Your task to perform on an android device: toggle notifications settings in the gmail app Image 0: 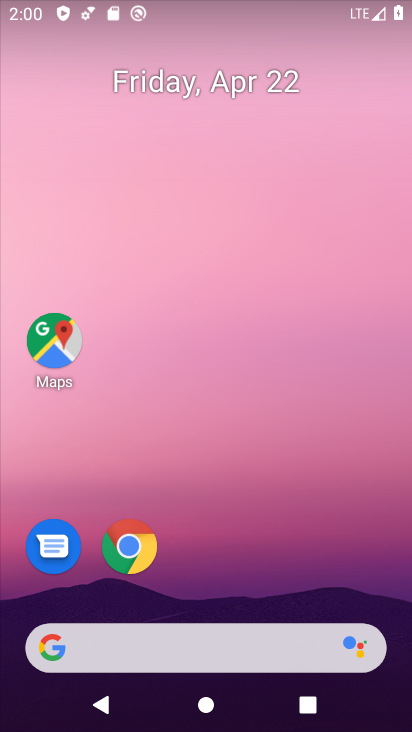
Step 0: drag from (238, 538) to (309, 205)
Your task to perform on an android device: toggle notifications settings in the gmail app Image 1: 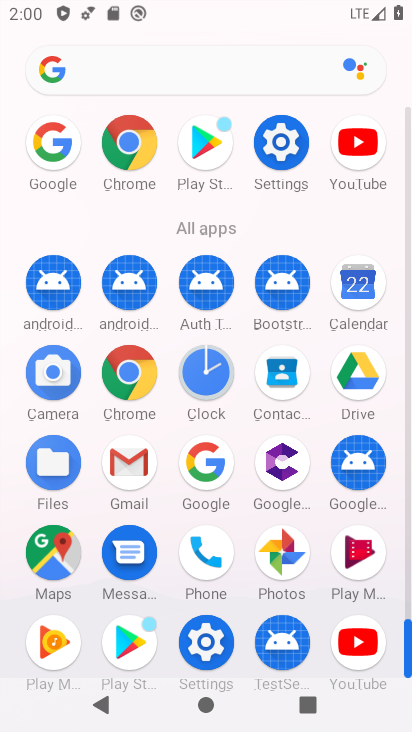
Step 1: click (136, 477)
Your task to perform on an android device: toggle notifications settings in the gmail app Image 2: 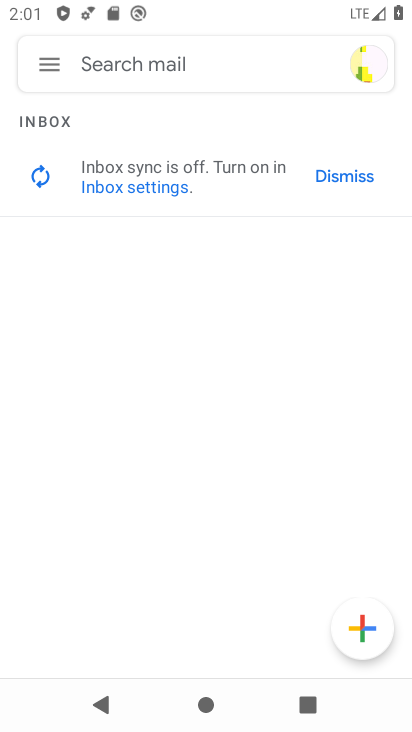
Step 2: click (55, 73)
Your task to perform on an android device: toggle notifications settings in the gmail app Image 3: 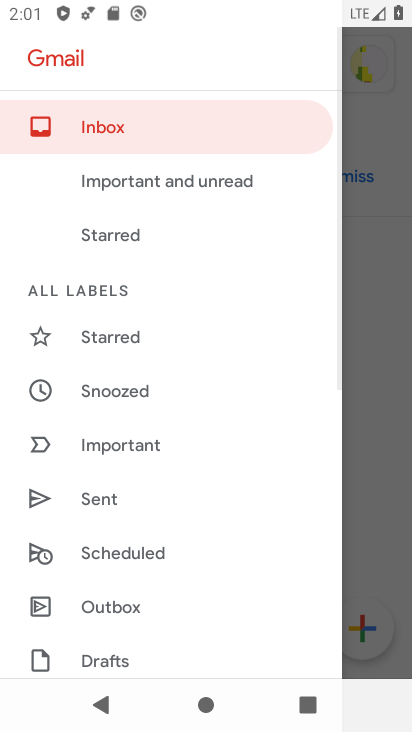
Step 3: drag from (119, 506) to (183, 163)
Your task to perform on an android device: toggle notifications settings in the gmail app Image 4: 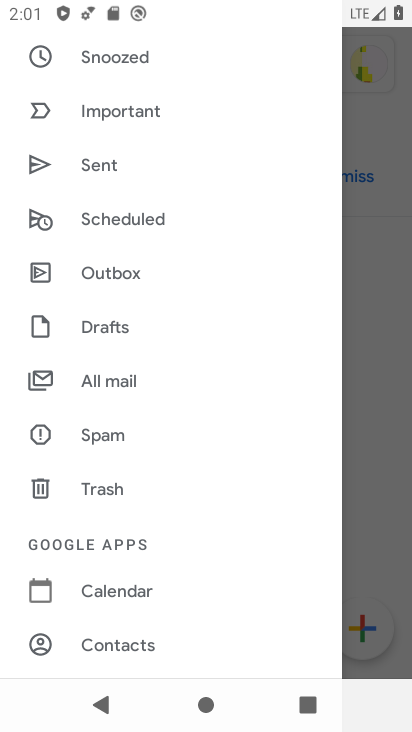
Step 4: drag from (149, 500) to (204, 197)
Your task to perform on an android device: toggle notifications settings in the gmail app Image 5: 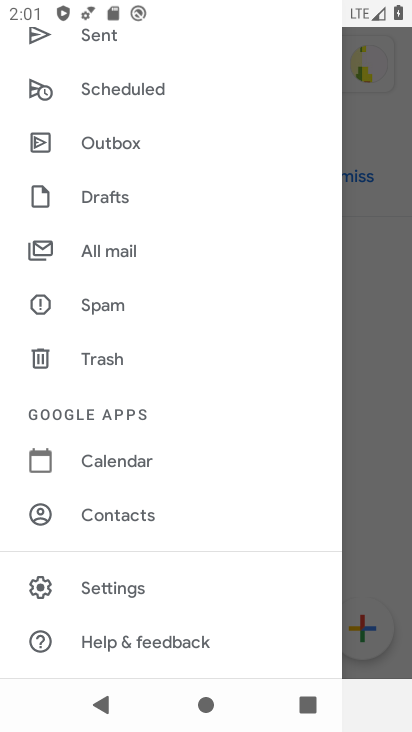
Step 5: click (127, 585)
Your task to perform on an android device: toggle notifications settings in the gmail app Image 6: 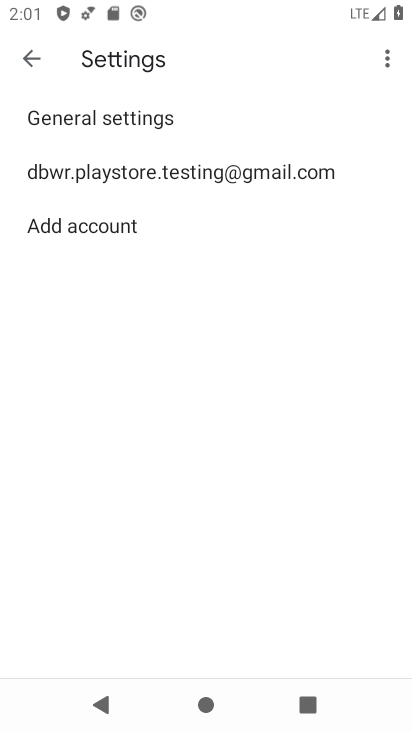
Step 6: click (186, 182)
Your task to perform on an android device: toggle notifications settings in the gmail app Image 7: 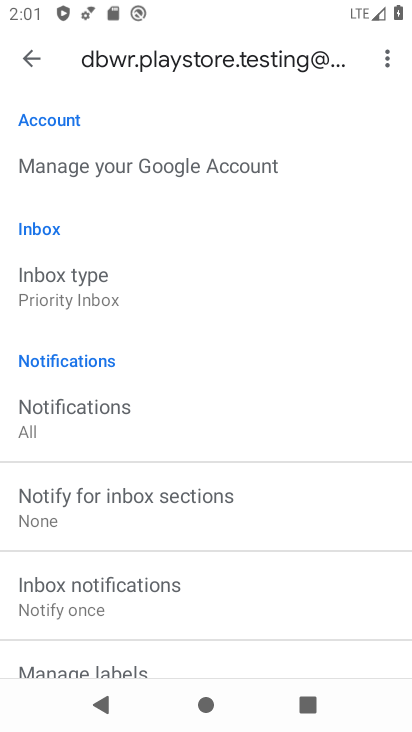
Step 7: click (33, 65)
Your task to perform on an android device: toggle notifications settings in the gmail app Image 8: 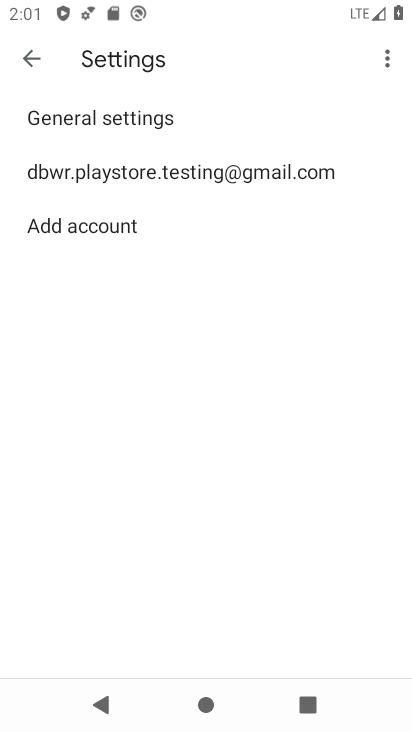
Step 8: click (174, 119)
Your task to perform on an android device: toggle notifications settings in the gmail app Image 9: 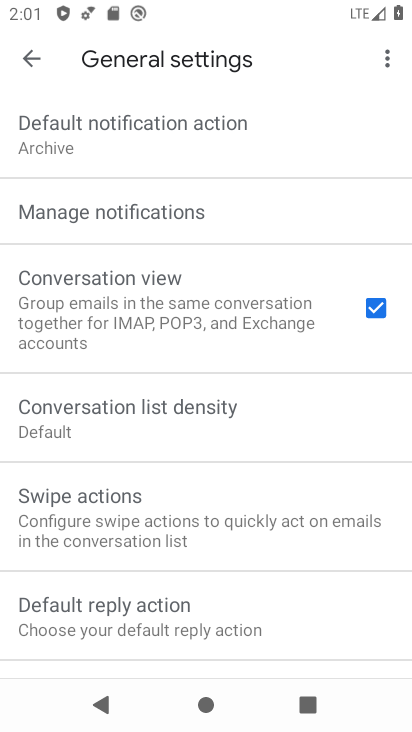
Step 9: click (152, 214)
Your task to perform on an android device: toggle notifications settings in the gmail app Image 10: 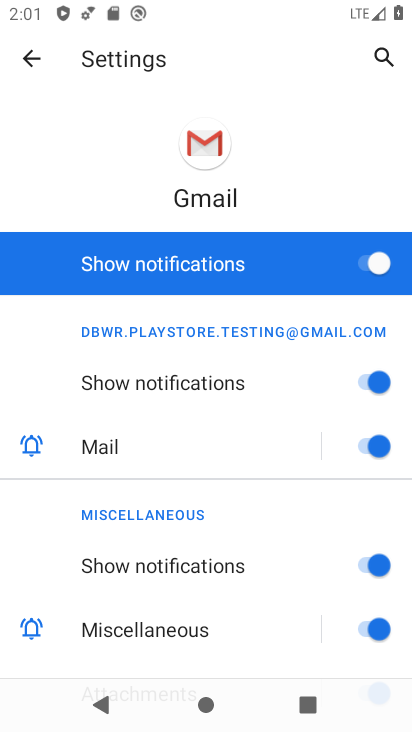
Step 10: click (373, 259)
Your task to perform on an android device: toggle notifications settings in the gmail app Image 11: 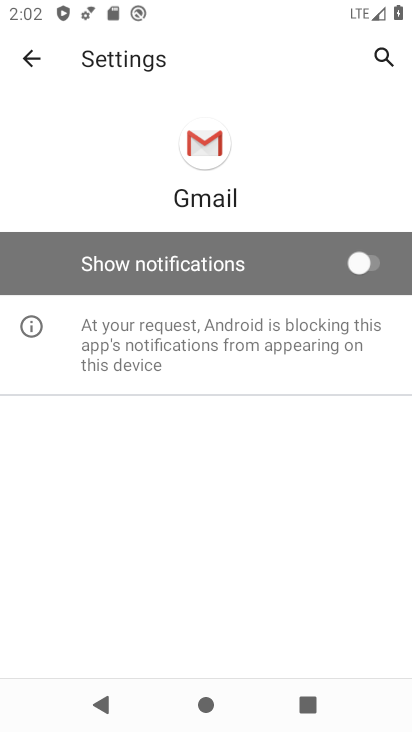
Step 11: task complete